Your task to perform on an android device: View the shopping cart on ebay. Image 0: 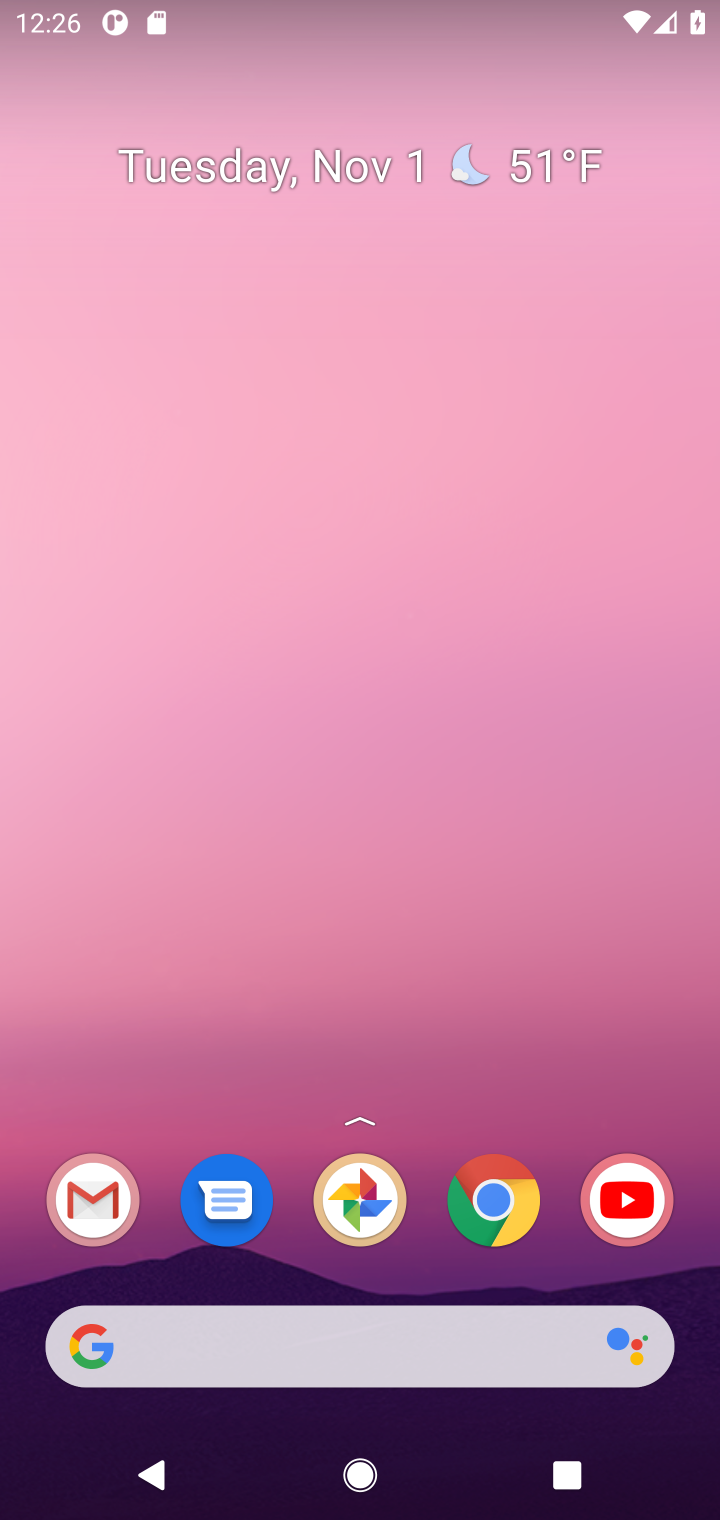
Step 0: click (468, 1212)
Your task to perform on an android device: View the shopping cart on ebay. Image 1: 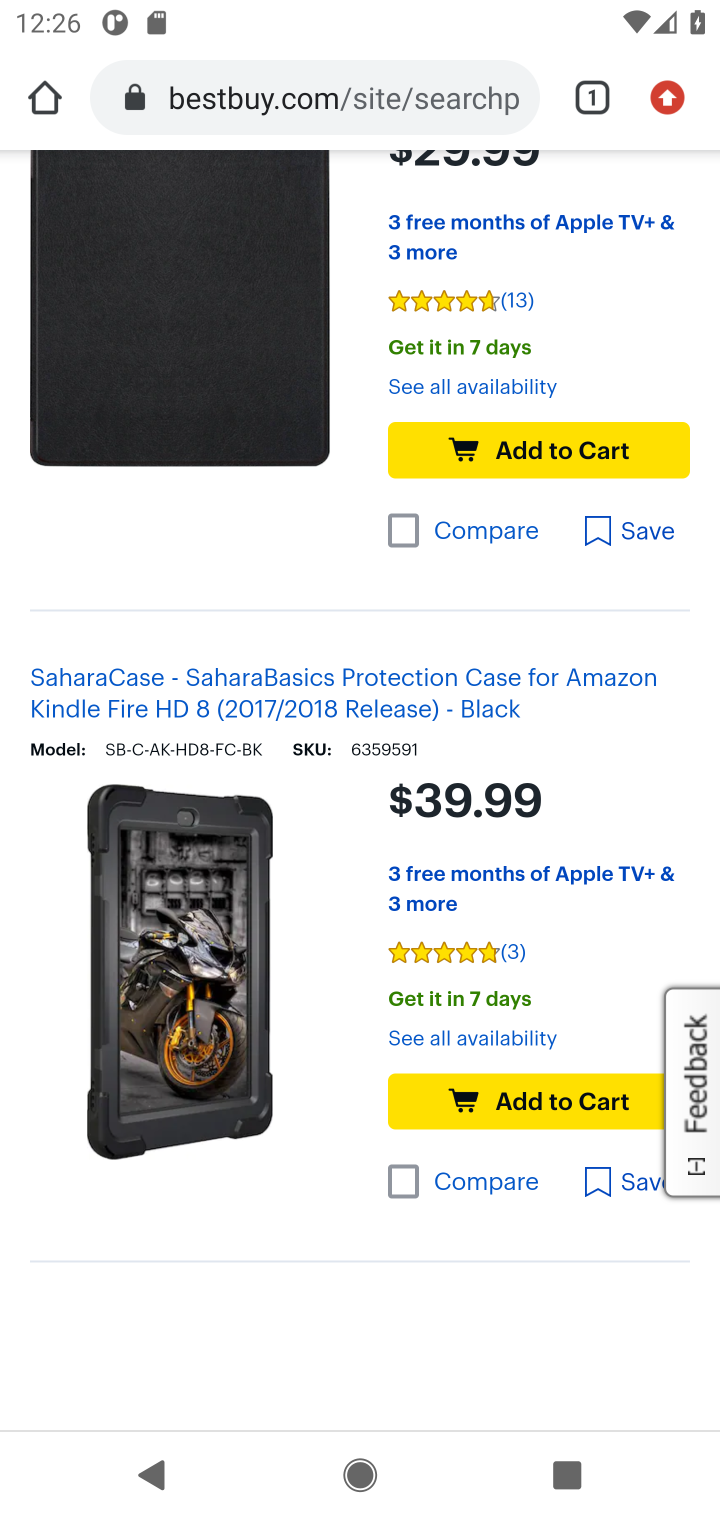
Step 1: click (299, 102)
Your task to perform on an android device: View the shopping cart on ebay. Image 2: 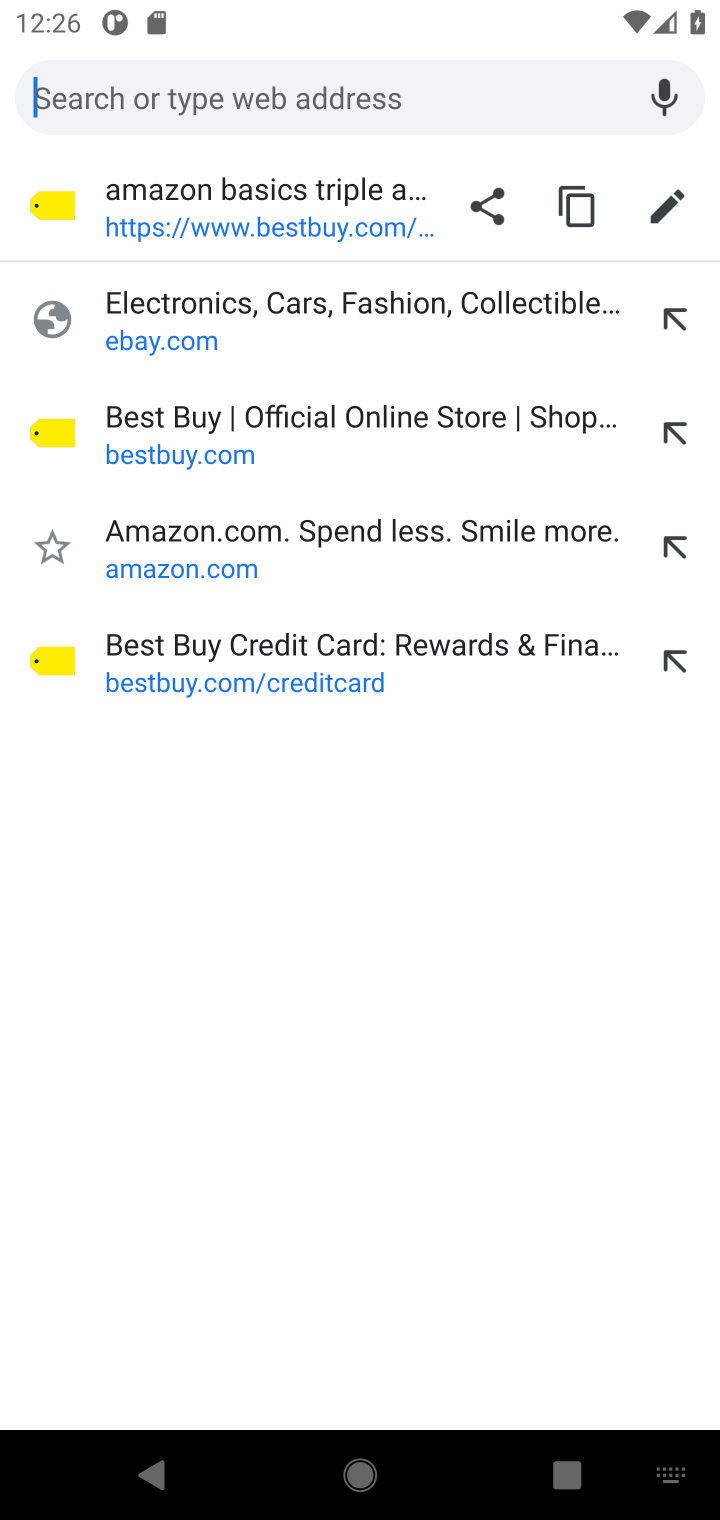
Step 2: type "ebay.com"
Your task to perform on an android device: View the shopping cart on ebay. Image 3: 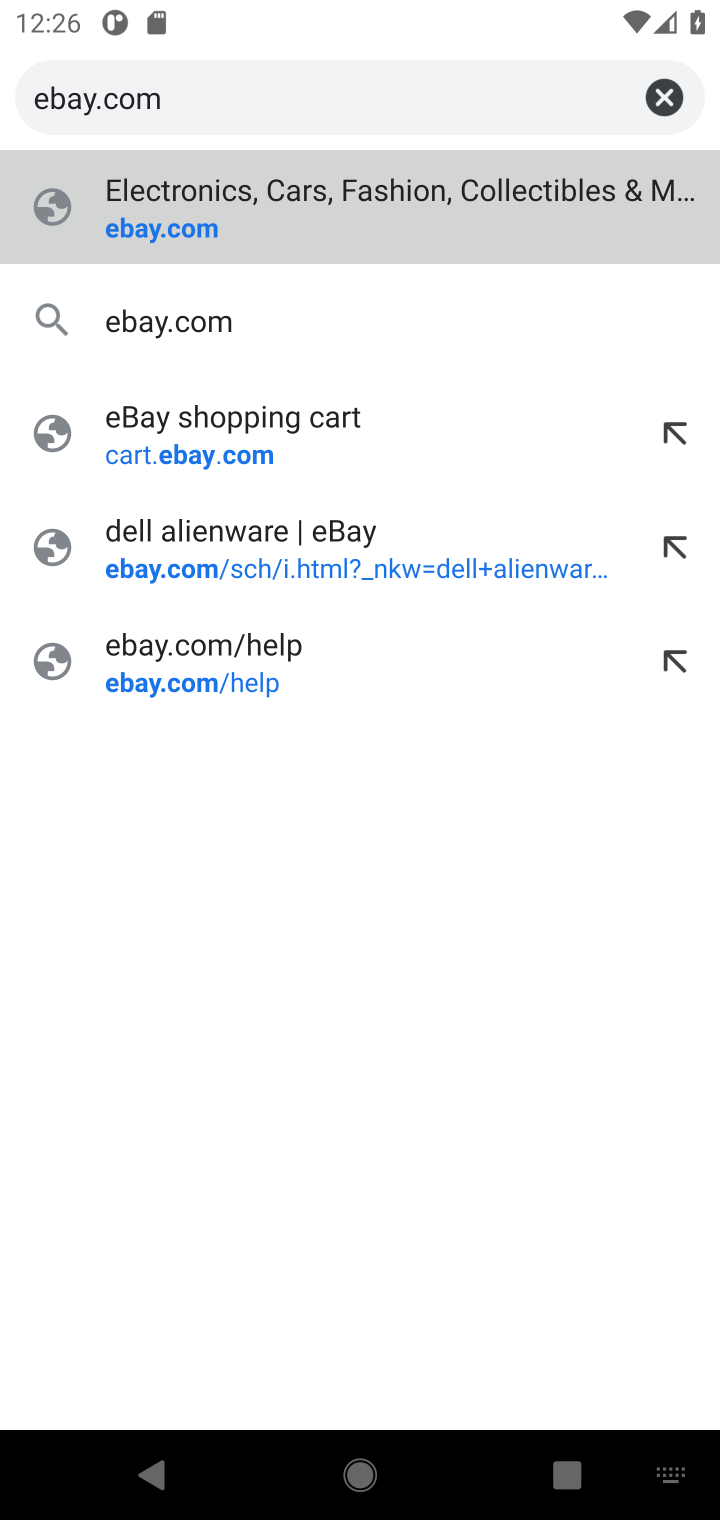
Step 3: click (192, 241)
Your task to perform on an android device: View the shopping cart on ebay. Image 4: 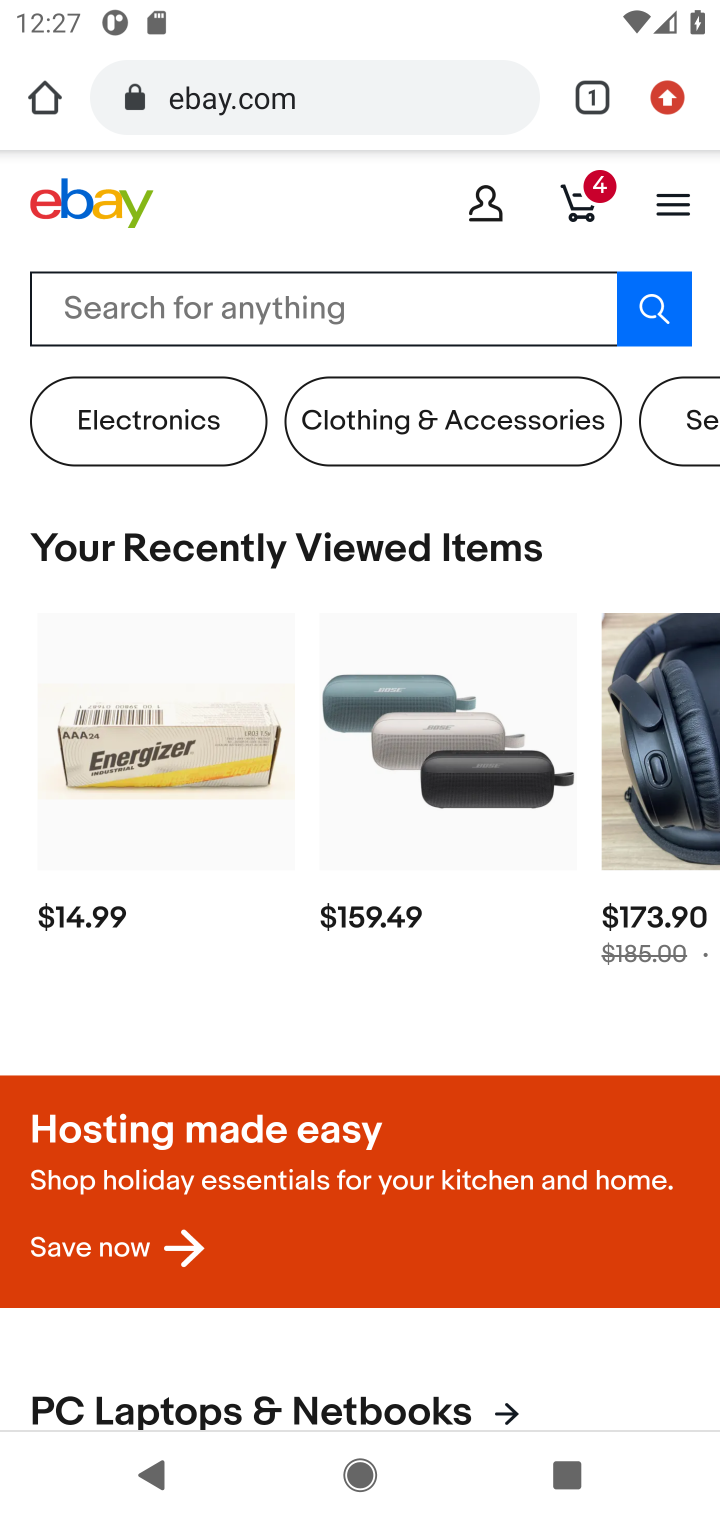
Step 4: click (588, 208)
Your task to perform on an android device: View the shopping cart on ebay. Image 5: 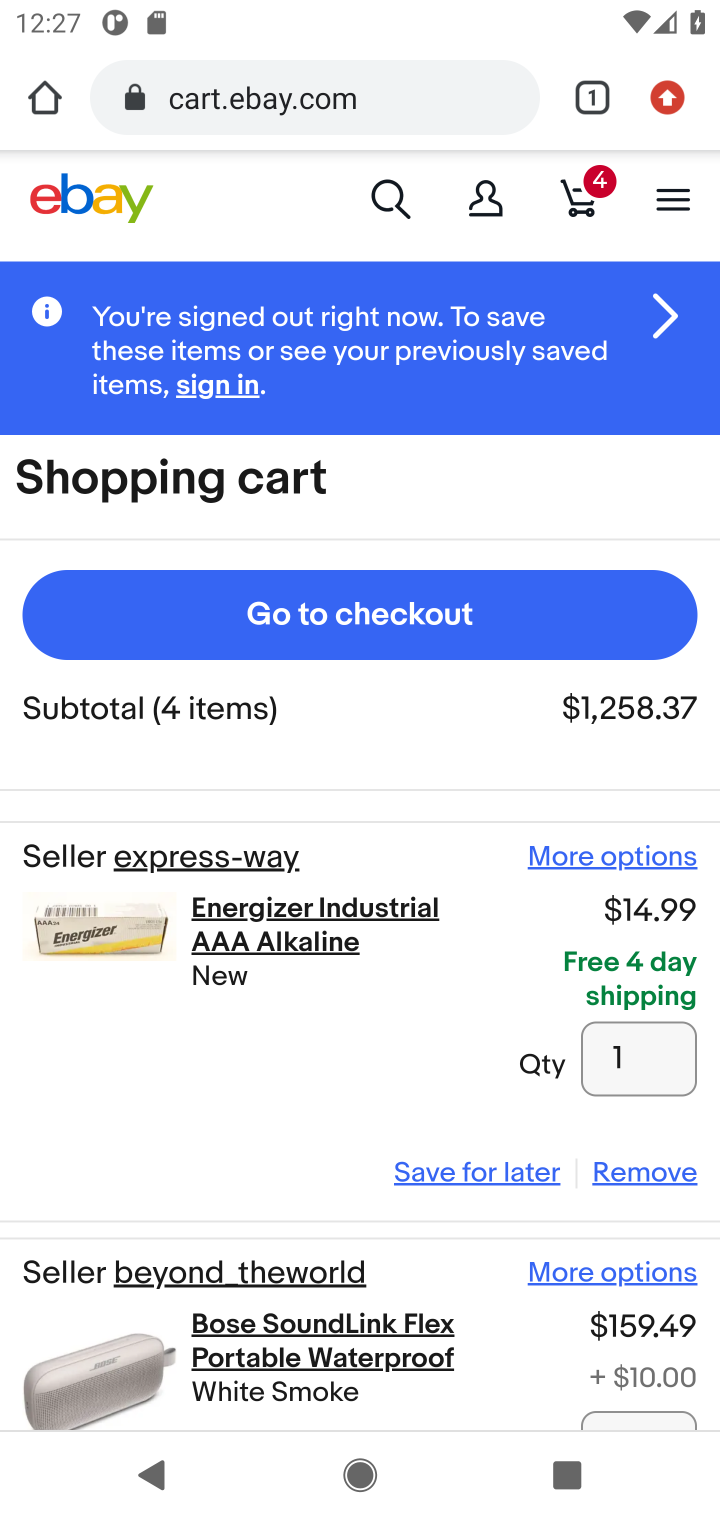
Step 5: task complete